Your task to perform on an android device: clear history in the chrome app Image 0: 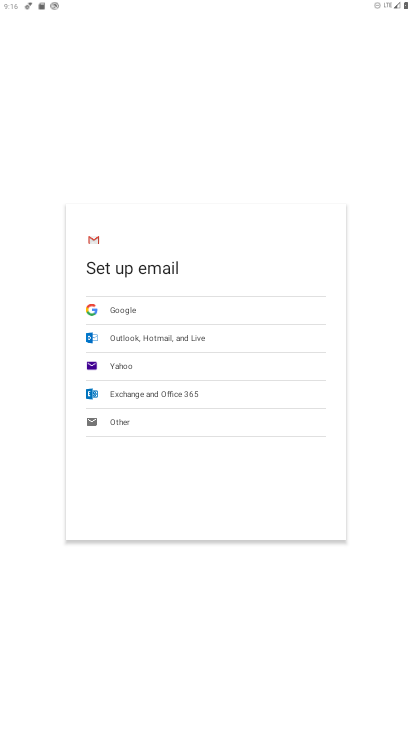
Step 0: press home button
Your task to perform on an android device: clear history in the chrome app Image 1: 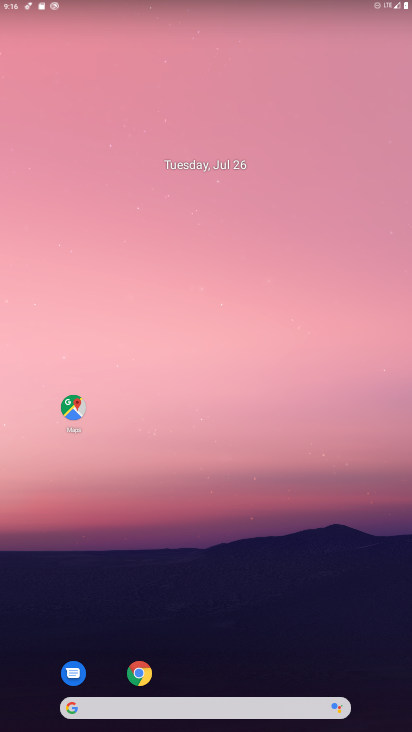
Step 1: click (141, 672)
Your task to perform on an android device: clear history in the chrome app Image 2: 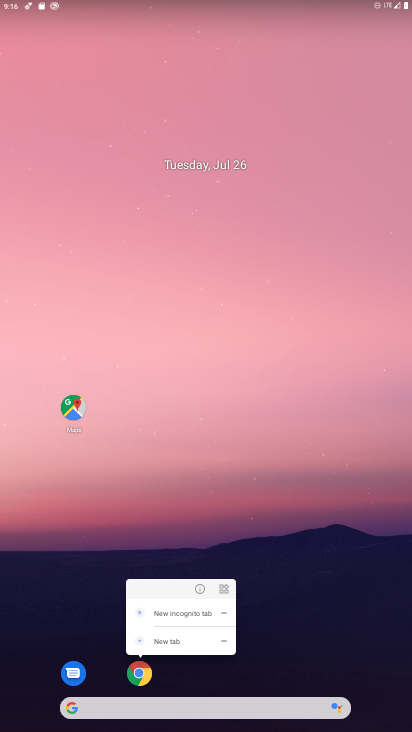
Step 2: click (141, 672)
Your task to perform on an android device: clear history in the chrome app Image 3: 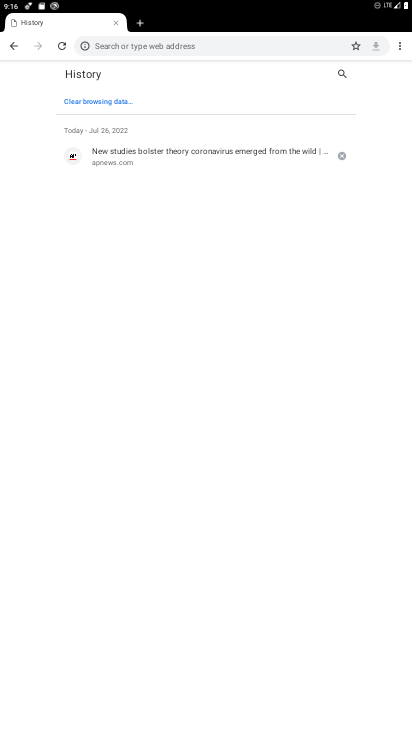
Step 3: click (403, 49)
Your task to perform on an android device: clear history in the chrome app Image 4: 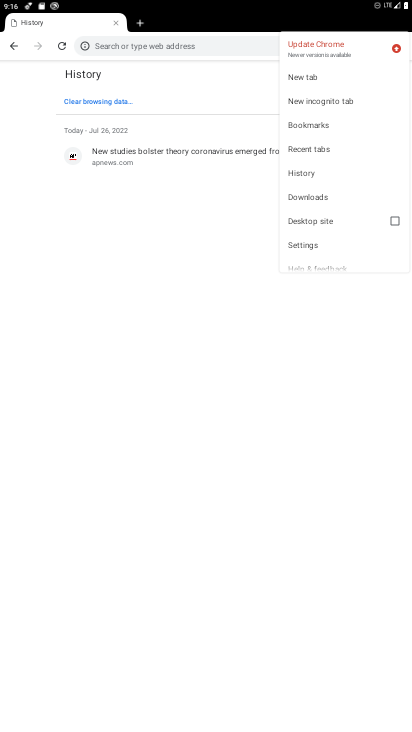
Step 4: click (116, 102)
Your task to perform on an android device: clear history in the chrome app Image 5: 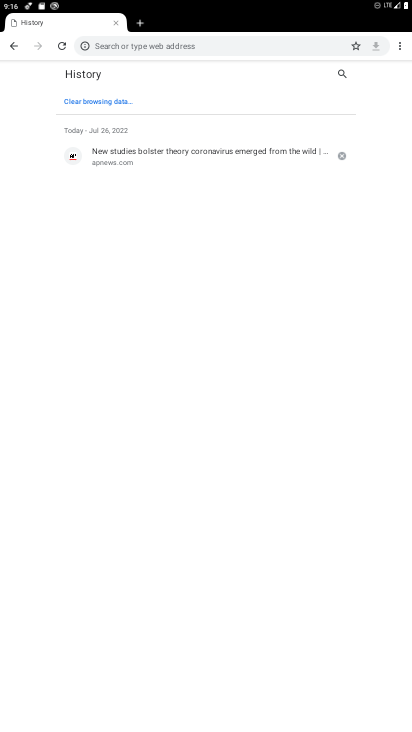
Step 5: click (78, 96)
Your task to perform on an android device: clear history in the chrome app Image 6: 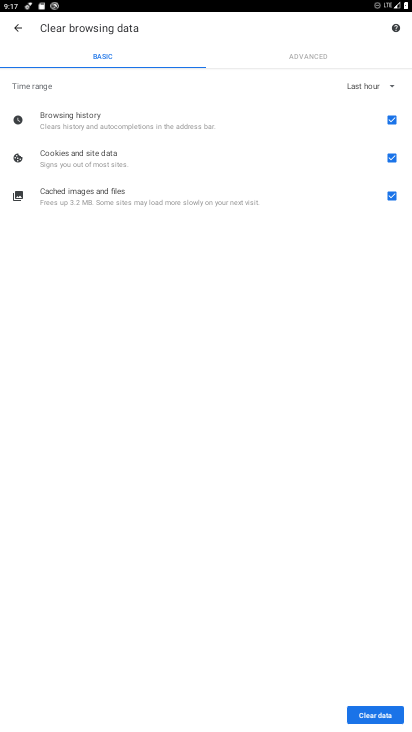
Step 6: click (398, 159)
Your task to perform on an android device: clear history in the chrome app Image 7: 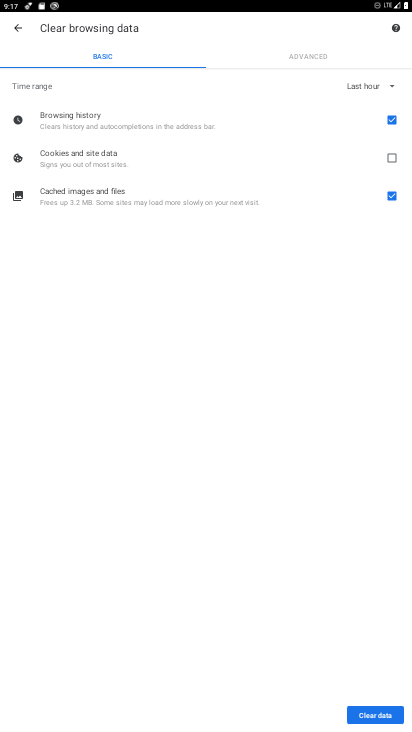
Step 7: click (398, 201)
Your task to perform on an android device: clear history in the chrome app Image 8: 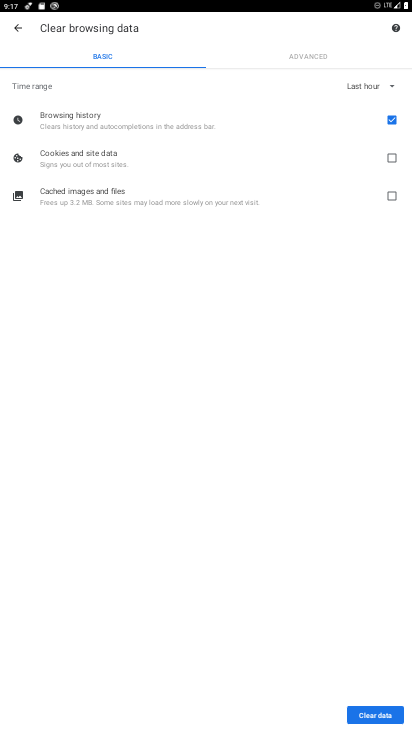
Step 8: click (395, 716)
Your task to perform on an android device: clear history in the chrome app Image 9: 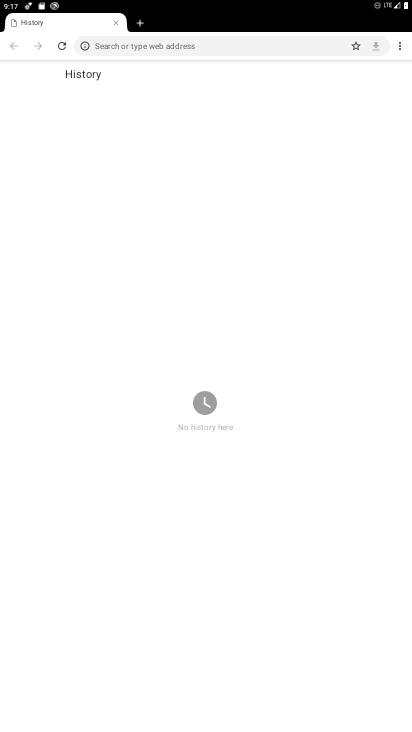
Step 9: task complete